Your task to perform on an android device: allow cookies in the chrome app Image 0: 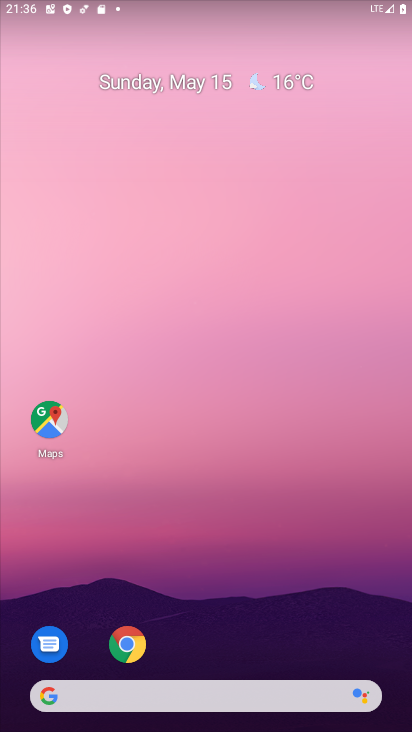
Step 0: click (124, 642)
Your task to perform on an android device: allow cookies in the chrome app Image 1: 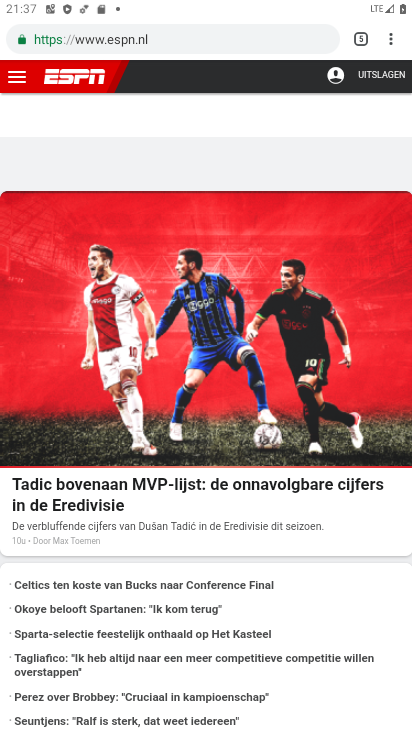
Step 1: click (390, 40)
Your task to perform on an android device: allow cookies in the chrome app Image 2: 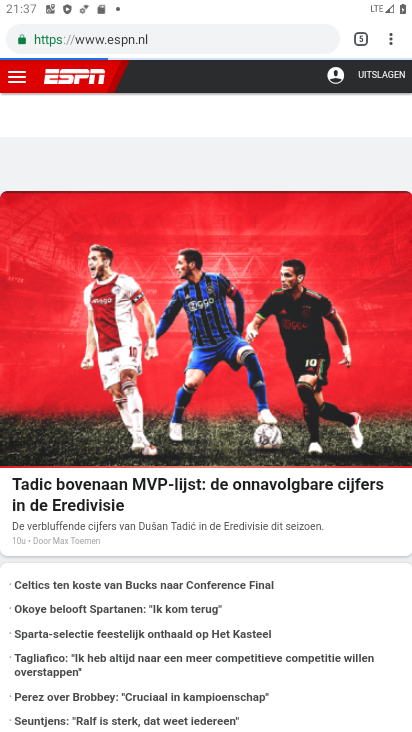
Step 2: drag from (386, 38) to (246, 436)
Your task to perform on an android device: allow cookies in the chrome app Image 3: 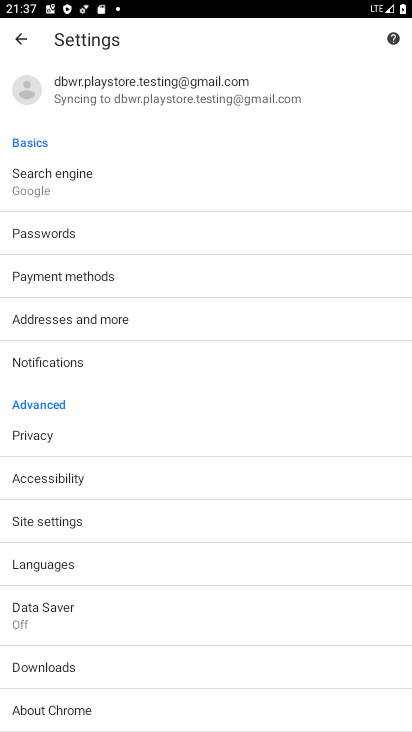
Step 3: click (74, 527)
Your task to perform on an android device: allow cookies in the chrome app Image 4: 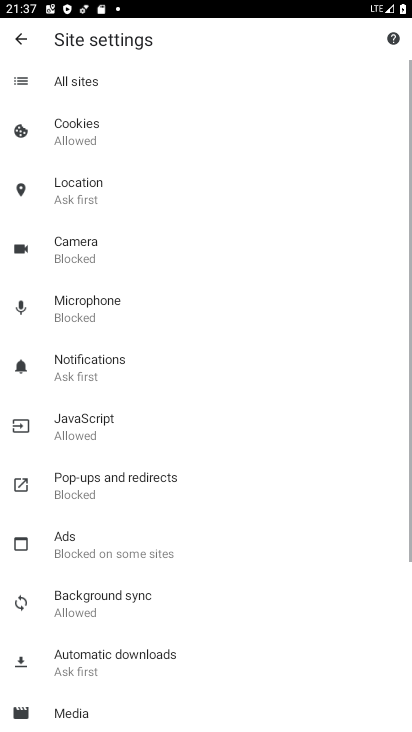
Step 4: click (72, 122)
Your task to perform on an android device: allow cookies in the chrome app Image 5: 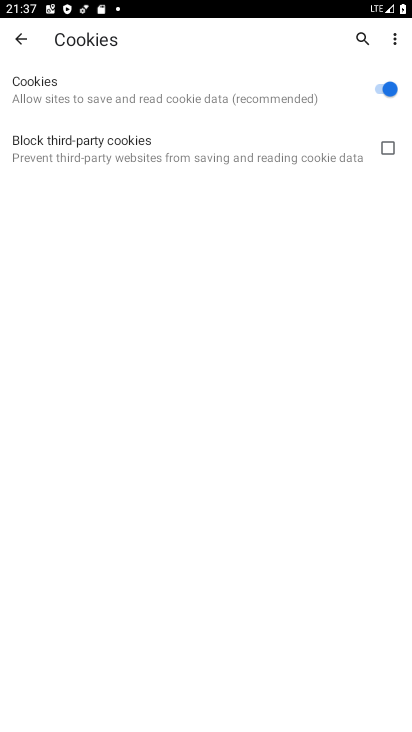
Step 5: task complete